Your task to perform on an android device: turn off airplane mode Image 0: 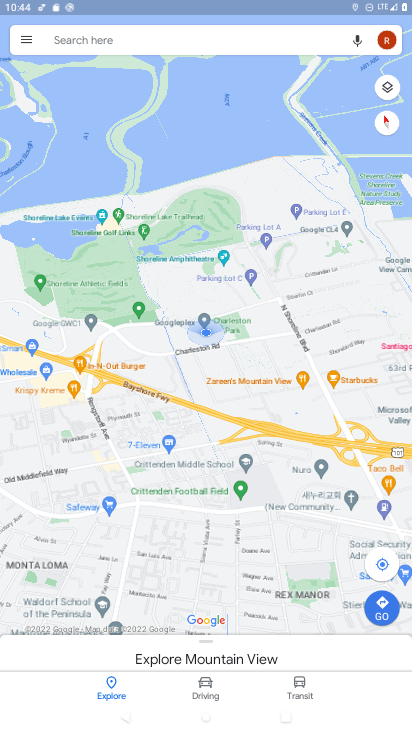
Step 0: press home button
Your task to perform on an android device: turn off airplane mode Image 1: 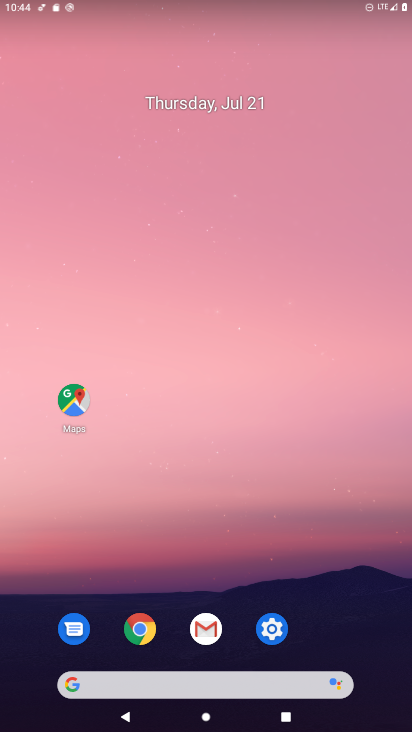
Step 1: click (283, 614)
Your task to perform on an android device: turn off airplane mode Image 2: 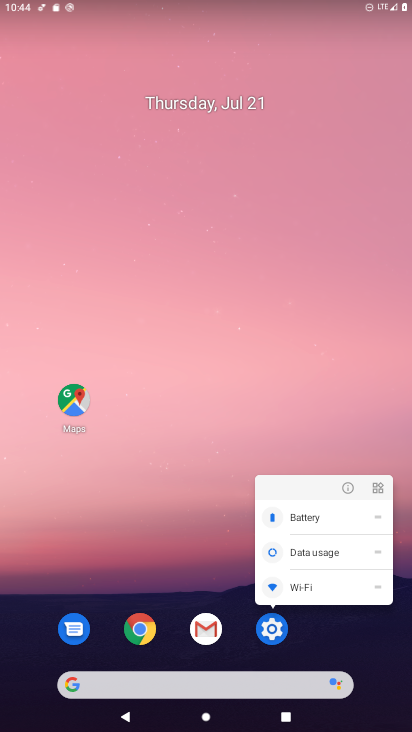
Step 2: click (276, 642)
Your task to perform on an android device: turn off airplane mode Image 3: 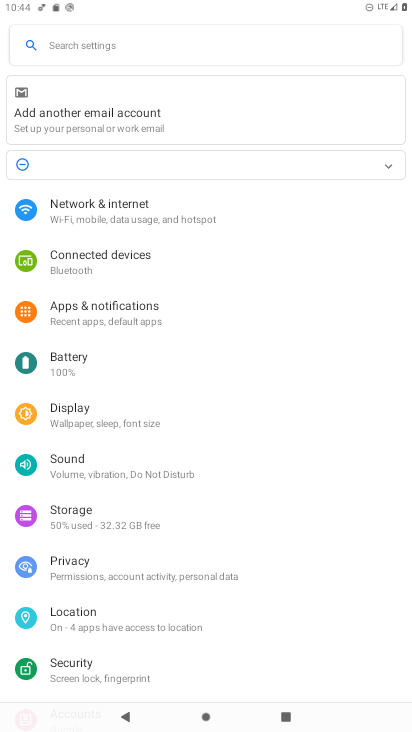
Step 3: click (161, 215)
Your task to perform on an android device: turn off airplane mode Image 4: 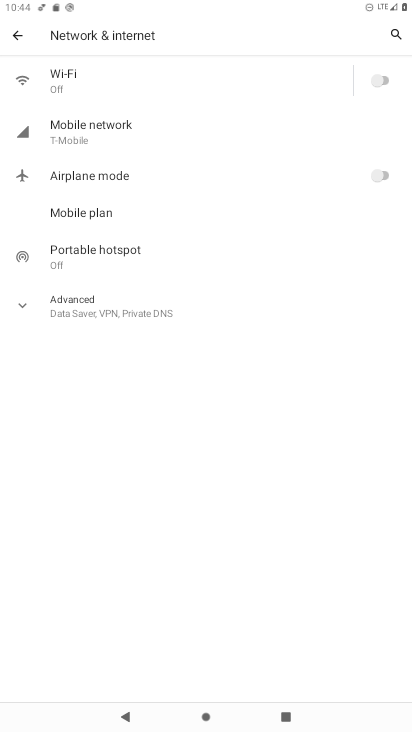
Step 4: click (126, 184)
Your task to perform on an android device: turn off airplane mode Image 5: 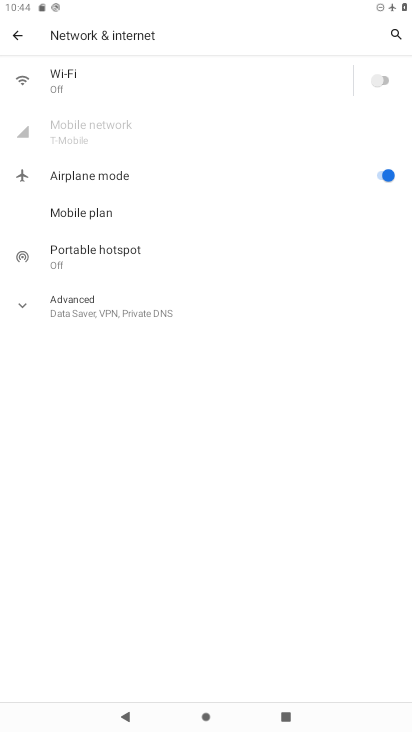
Step 5: click (126, 184)
Your task to perform on an android device: turn off airplane mode Image 6: 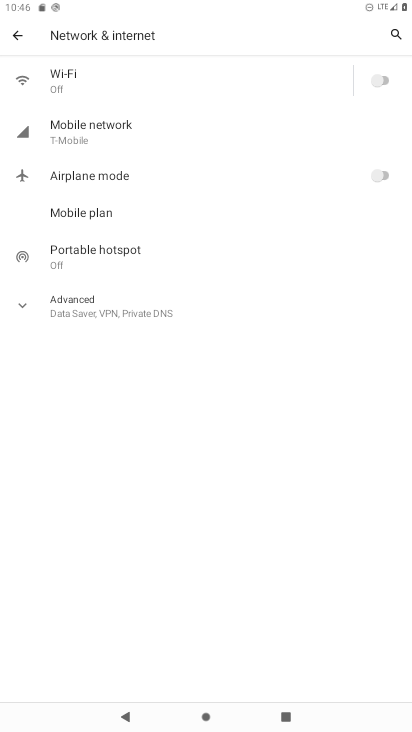
Step 6: task complete